Your task to perform on an android device: turn on sleep mode Image 0: 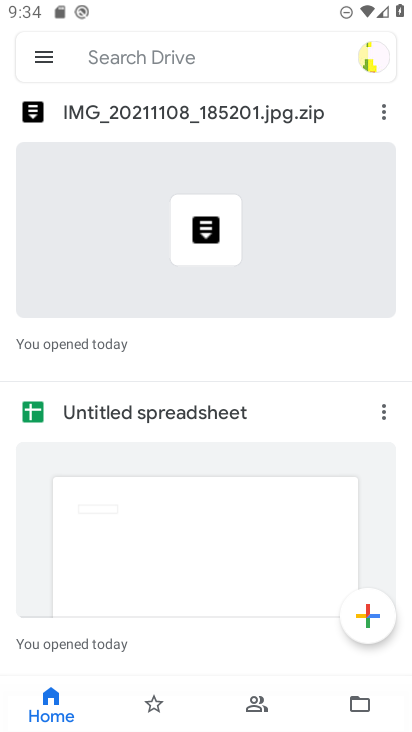
Step 0: press home button
Your task to perform on an android device: turn on sleep mode Image 1: 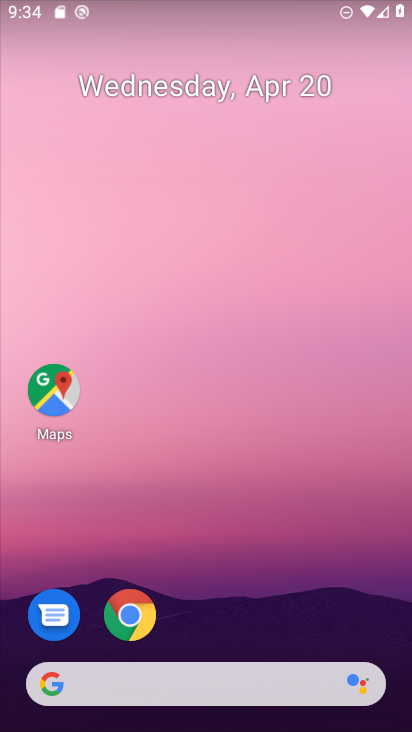
Step 1: drag from (196, 624) to (253, 62)
Your task to perform on an android device: turn on sleep mode Image 2: 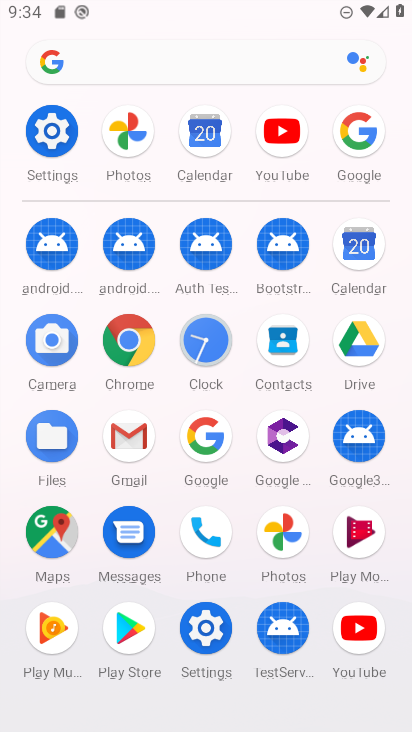
Step 2: click (53, 132)
Your task to perform on an android device: turn on sleep mode Image 3: 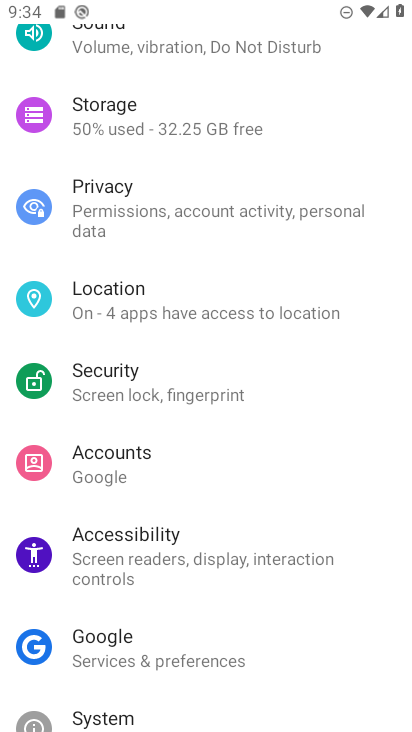
Step 3: drag from (229, 222) to (224, 303)
Your task to perform on an android device: turn on sleep mode Image 4: 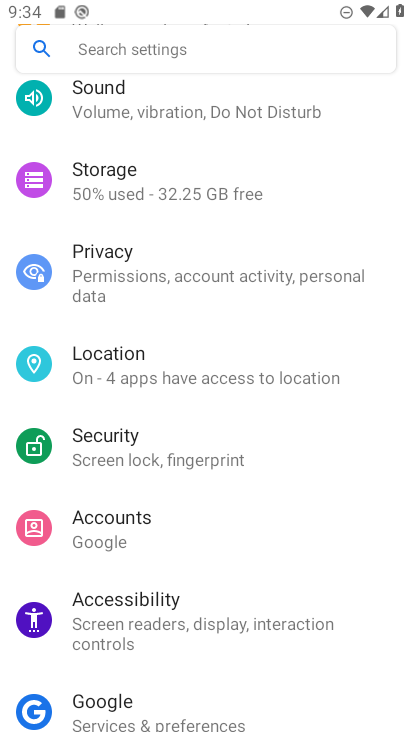
Step 4: drag from (258, 170) to (266, 255)
Your task to perform on an android device: turn on sleep mode Image 5: 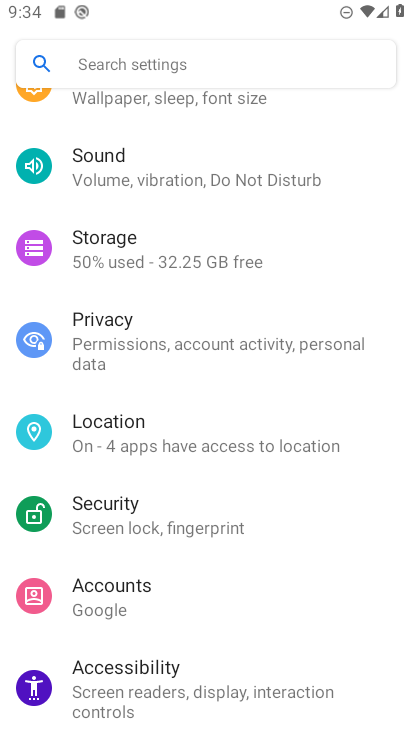
Step 5: drag from (245, 153) to (237, 253)
Your task to perform on an android device: turn on sleep mode Image 6: 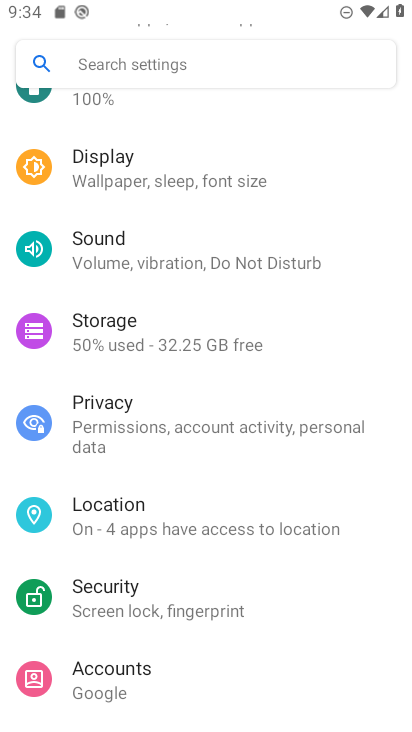
Step 6: click (192, 182)
Your task to perform on an android device: turn on sleep mode Image 7: 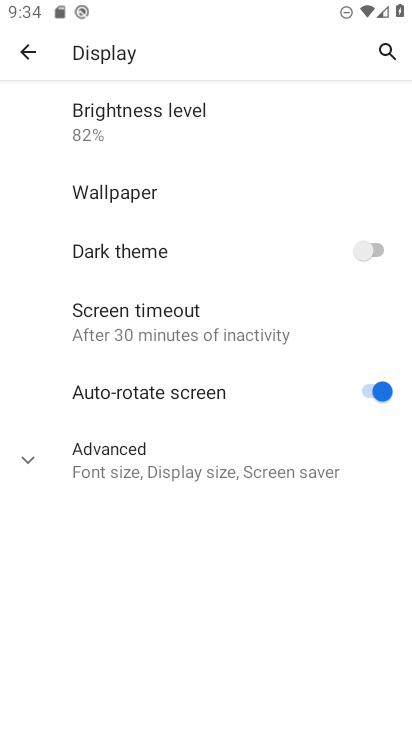
Step 7: click (195, 324)
Your task to perform on an android device: turn on sleep mode Image 8: 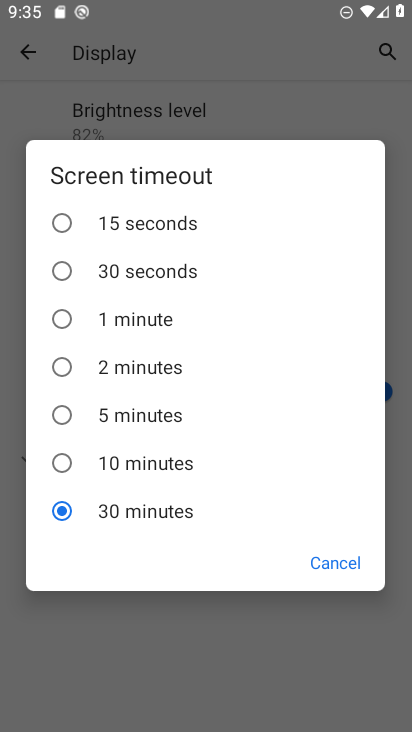
Step 8: drag from (172, 288) to (162, 378)
Your task to perform on an android device: turn on sleep mode Image 9: 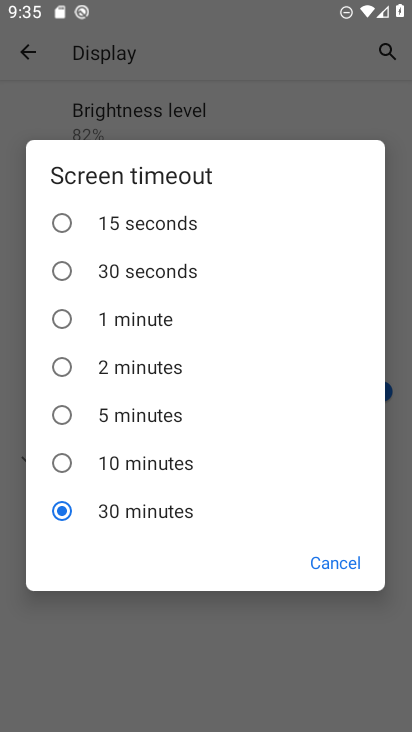
Step 9: drag from (205, 447) to (232, 287)
Your task to perform on an android device: turn on sleep mode Image 10: 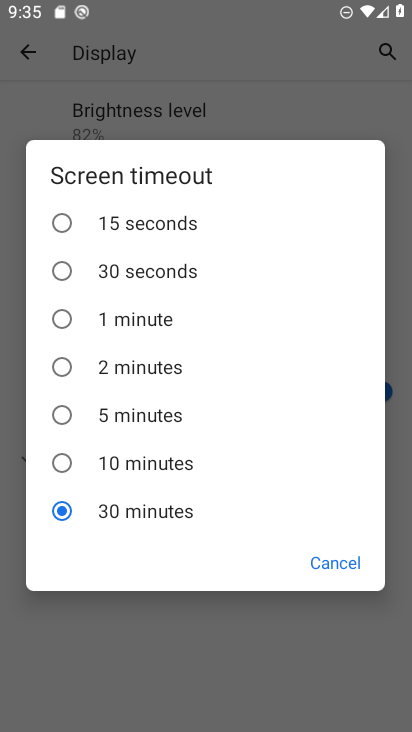
Step 10: click (343, 563)
Your task to perform on an android device: turn on sleep mode Image 11: 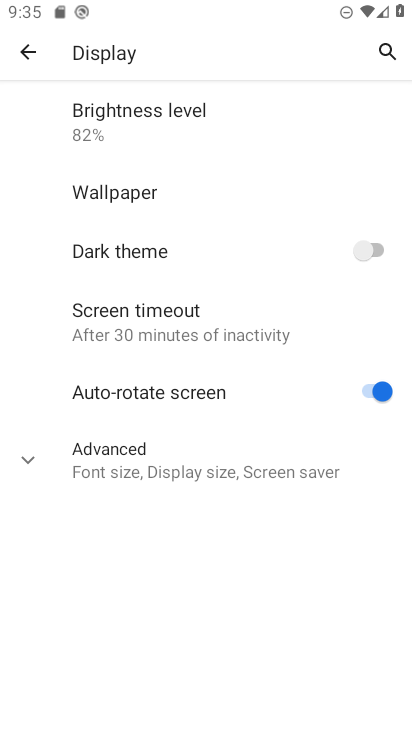
Step 11: click (201, 461)
Your task to perform on an android device: turn on sleep mode Image 12: 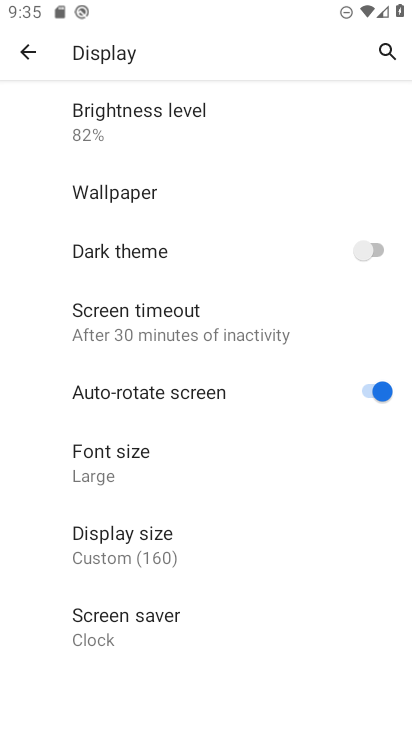
Step 12: task complete